Your task to perform on an android device: turn notification dots on Image 0: 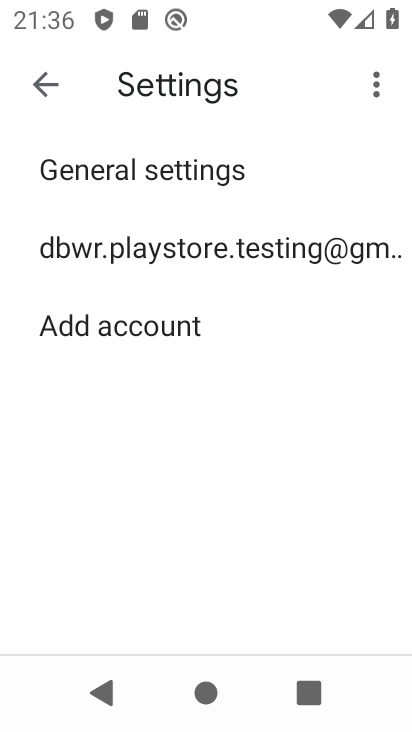
Step 0: press home button
Your task to perform on an android device: turn notification dots on Image 1: 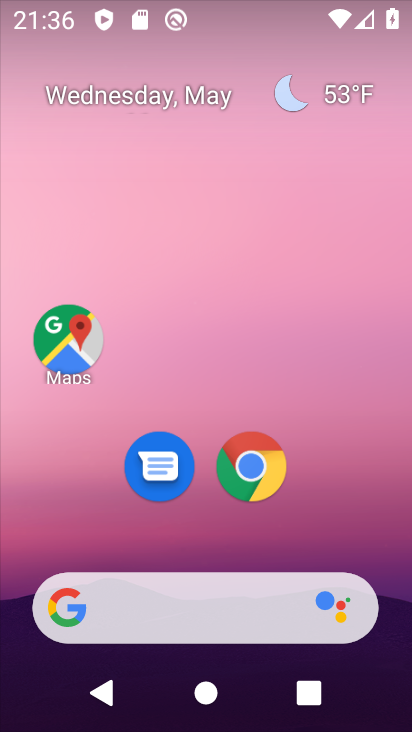
Step 1: drag from (208, 541) to (264, 198)
Your task to perform on an android device: turn notification dots on Image 2: 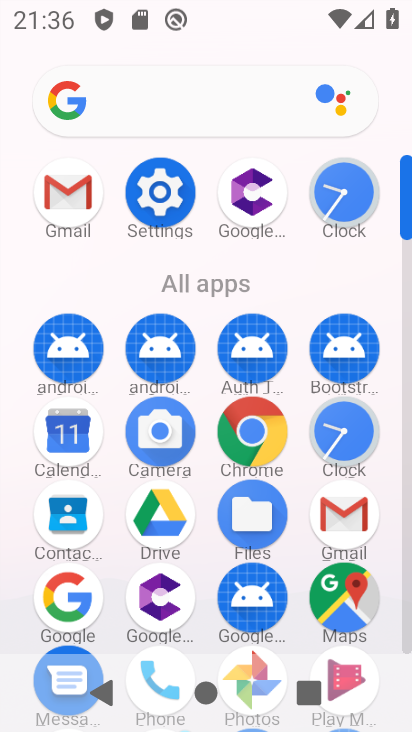
Step 2: click (137, 222)
Your task to perform on an android device: turn notification dots on Image 3: 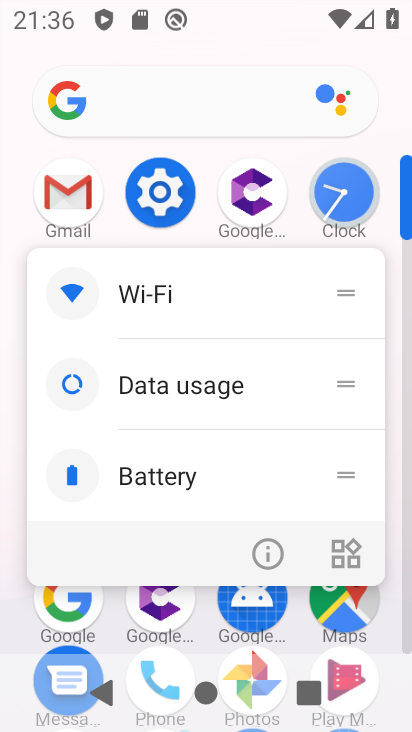
Step 3: click (262, 556)
Your task to perform on an android device: turn notification dots on Image 4: 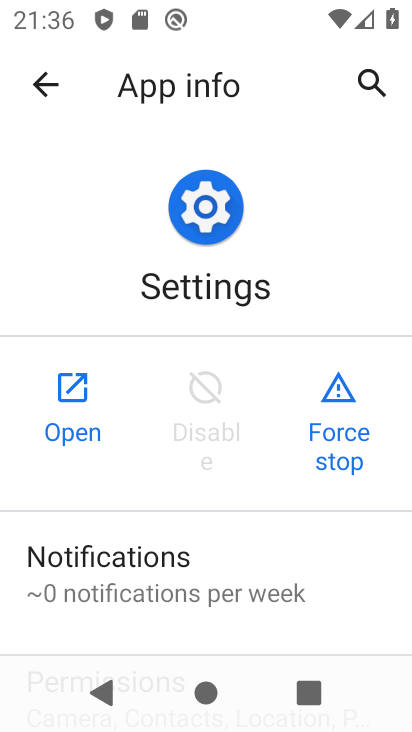
Step 4: click (63, 418)
Your task to perform on an android device: turn notification dots on Image 5: 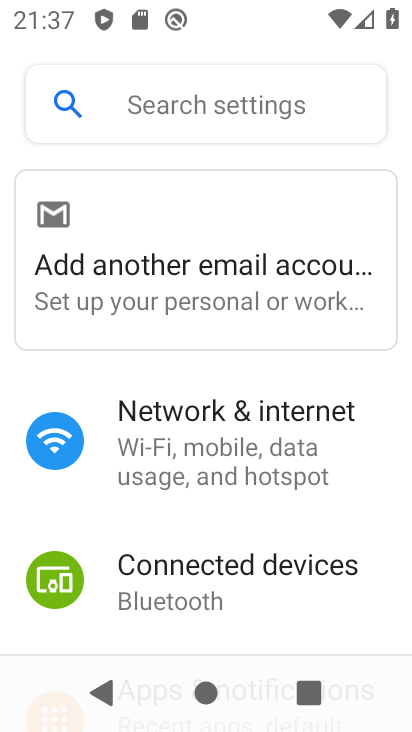
Step 5: drag from (119, 539) to (229, 69)
Your task to perform on an android device: turn notification dots on Image 6: 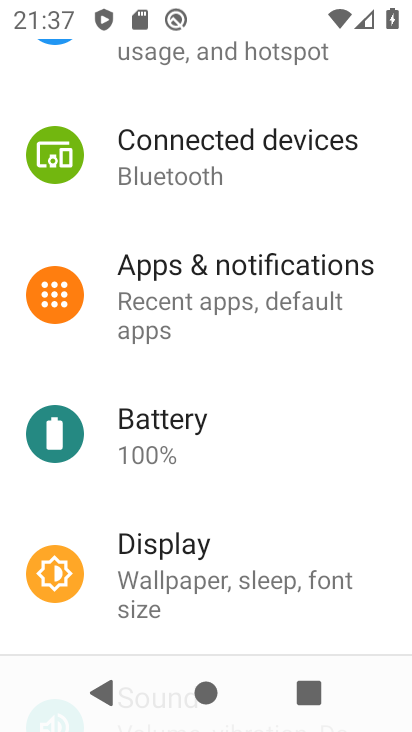
Step 6: click (228, 279)
Your task to perform on an android device: turn notification dots on Image 7: 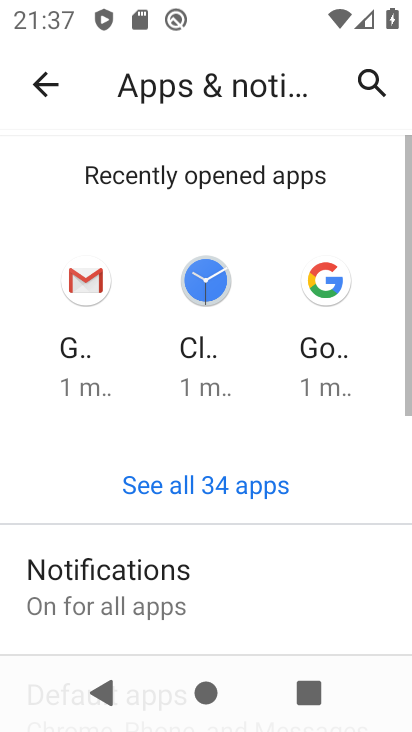
Step 7: drag from (226, 494) to (309, 76)
Your task to perform on an android device: turn notification dots on Image 8: 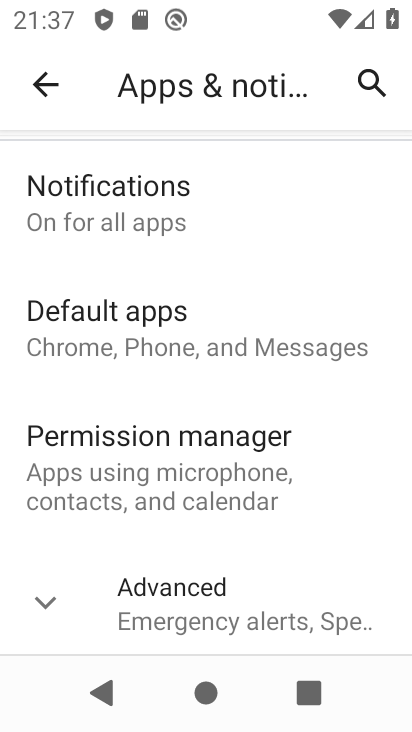
Step 8: click (227, 177)
Your task to perform on an android device: turn notification dots on Image 9: 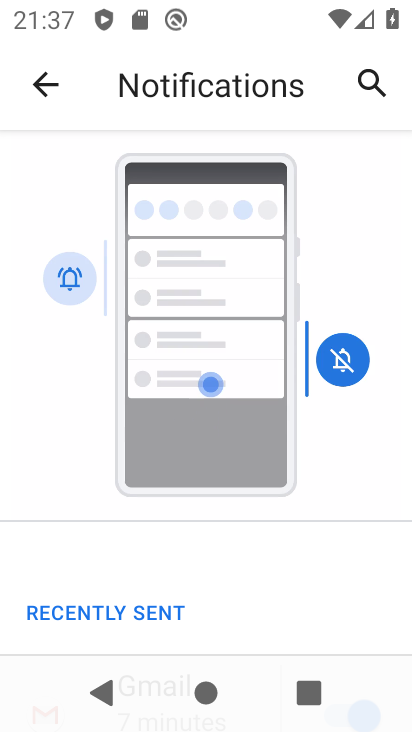
Step 9: drag from (258, 611) to (292, 118)
Your task to perform on an android device: turn notification dots on Image 10: 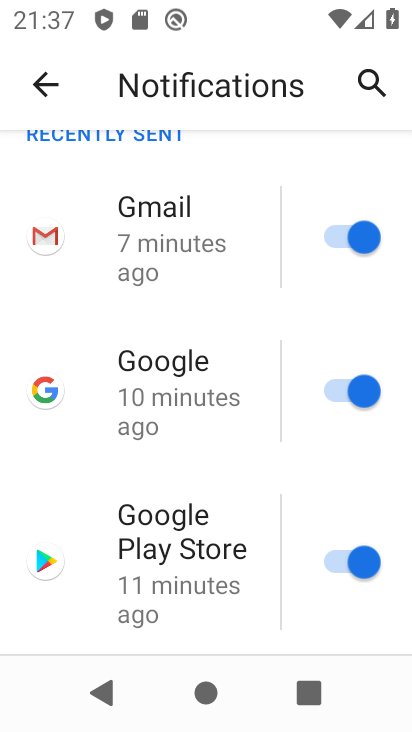
Step 10: drag from (203, 648) to (290, 178)
Your task to perform on an android device: turn notification dots on Image 11: 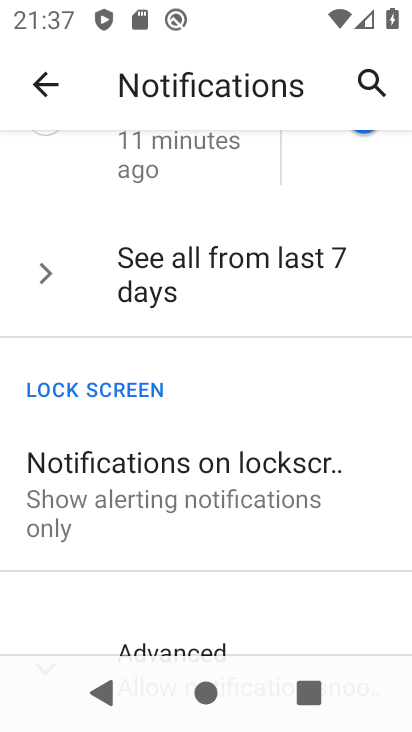
Step 11: drag from (179, 601) to (266, 235)
Your task to perform on an android device: turn notification dots on Image 12: 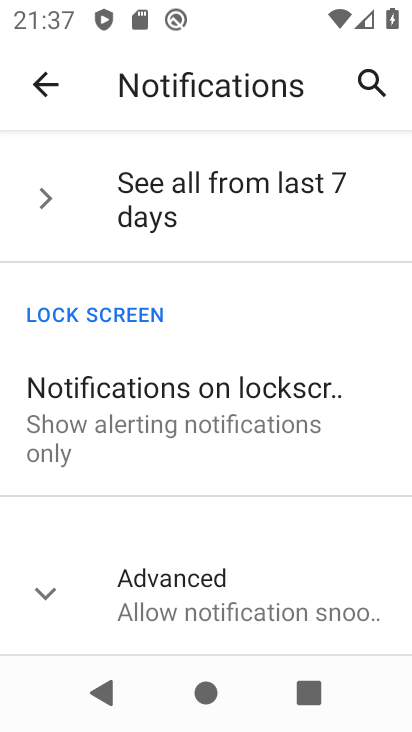
Step 12: click (148, 604)
Your task to perform on an android device: turn notification dots on Image 13: 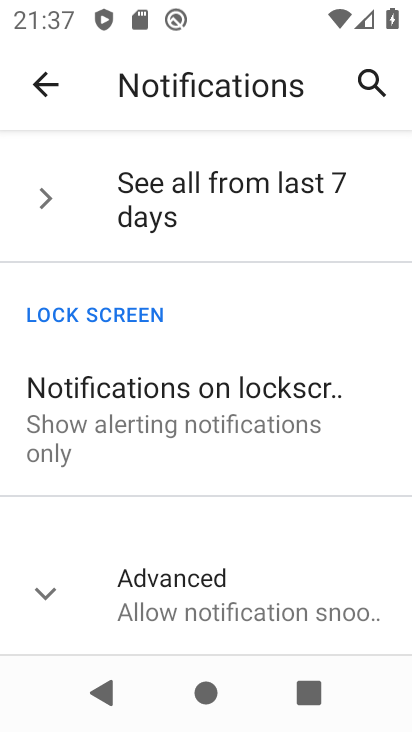
Step 13: click (148, 604)
Your task to perform on an android device: turn notification dots on Image 14: 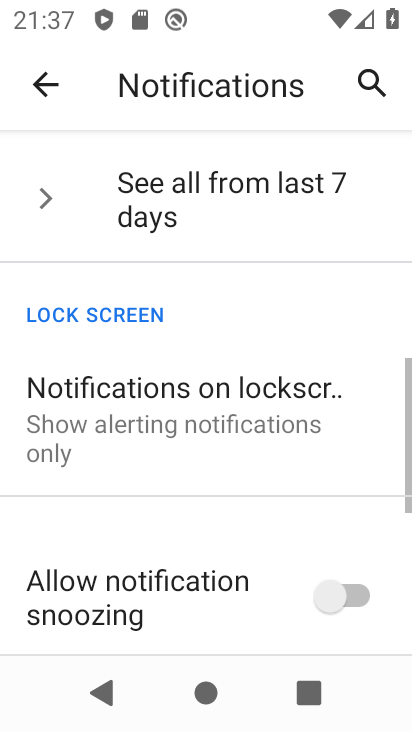
Step 14: task complete